Your task to perform on an android device: delete a single message in the gmail app Image 0: 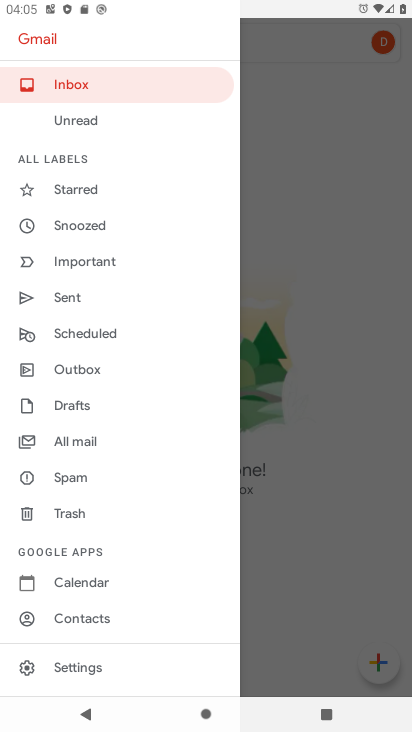
Step 0: task impossible